Your task to perform on an android device: Open my contact list Image 0: 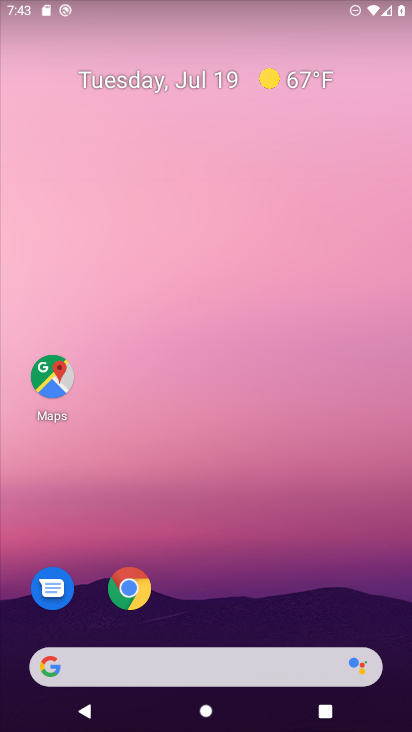
Step 0: drag from (322, 590) to (404, 60)
Your task to perform on an android device: Open my contact list Image 1: 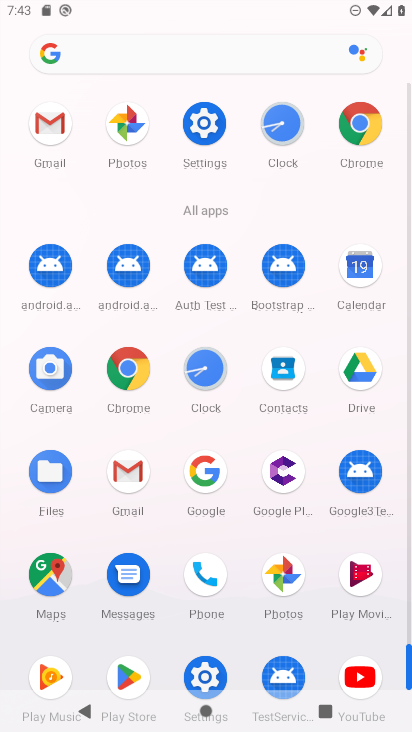
Step 1: click (282, 372)
Your task to perform on an android device: Open my contact list Image 2: 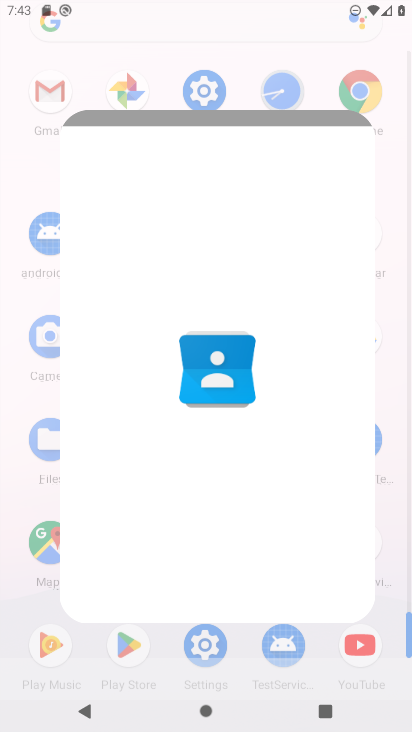
Step 2: click (282, 372)
Your task to perform on an android device: Open my contact list Image 3: 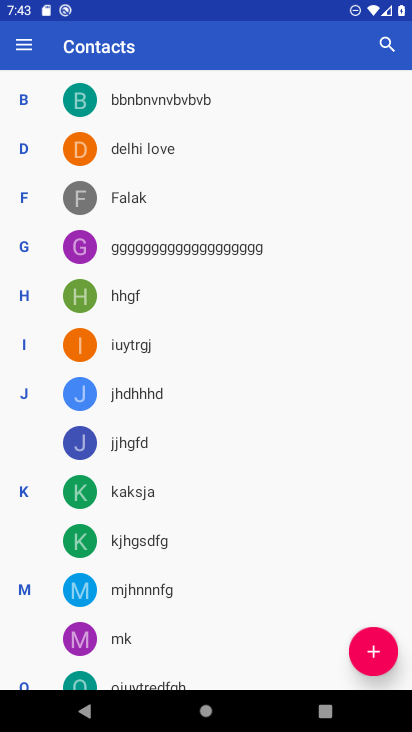
Step 3: task complete